Your task to perform on an android device: open chrome and create a bookmark for the current page Image 0: 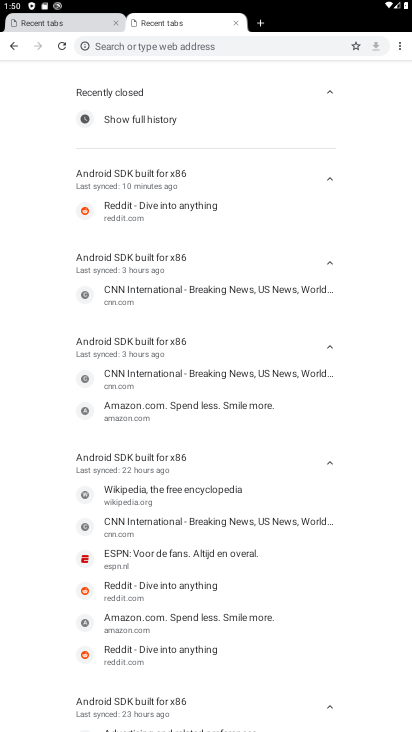
Step 0: press home button
Your task to perform on an android device: open chrome and create a bookmark for the current page Image 1: 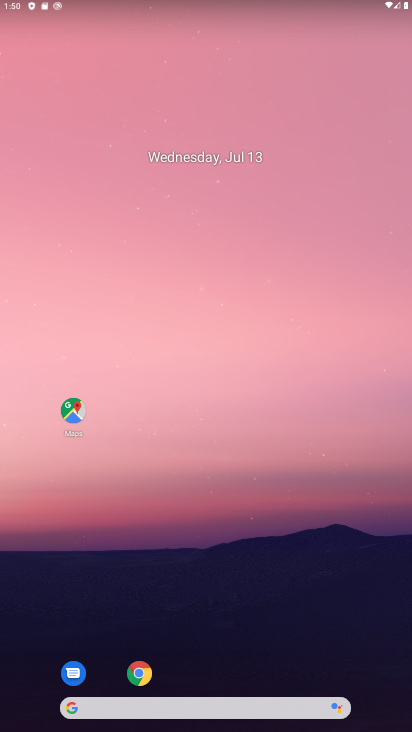
Step 1: click (133, 679)
Your task to perform on an android device: open chrome and create a bookmark for the current page Image 2: 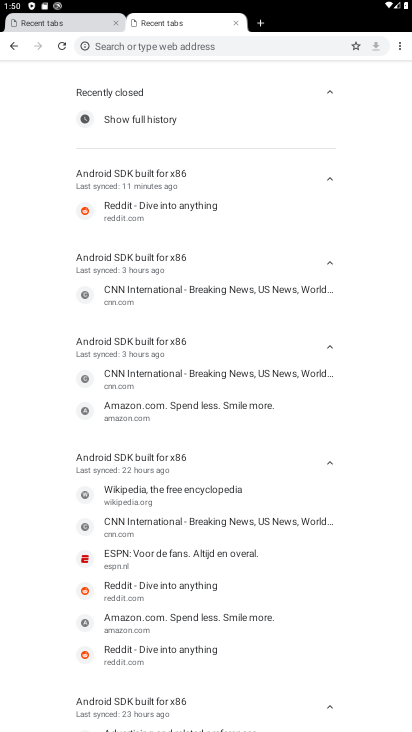
Step 2: click (355, 47)
Your task to perform on an android device: open chrome and create a bookmark for the current page Image 3: 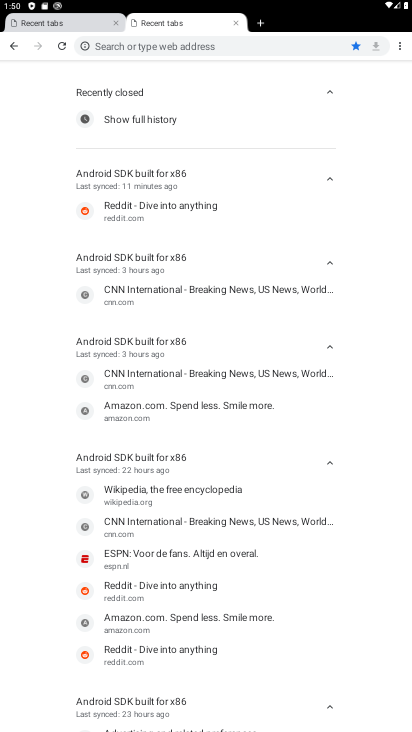
Step 3: task complete